Your task to perform on an android device: find photos in the google photos app Image 0: 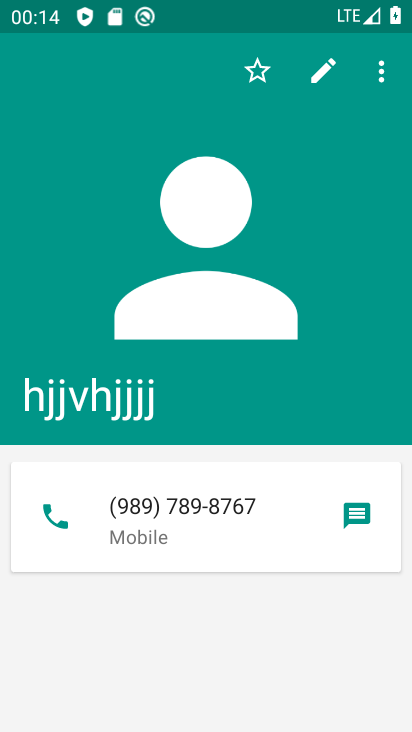
Step 0: press home button
Your task to perform on an android device: find photos in the google photos app Image 1: 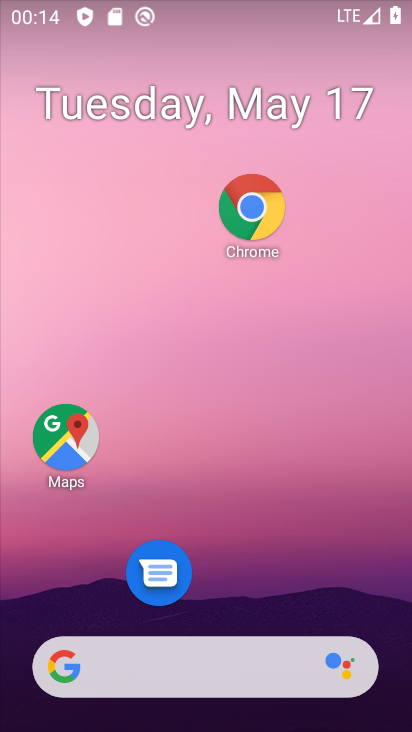
Step 1: drag from (225, 660) to (296, 50)
Your task to perform on an android device: find photos in the google photos app Image 2: 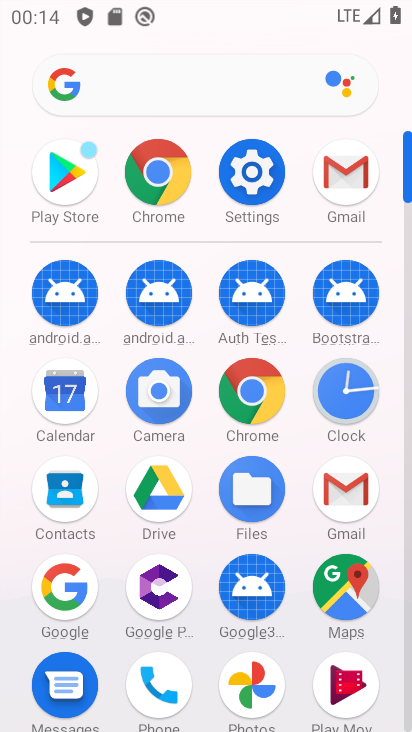
Step 2: click (266, 681)
Your task to perform on an android device: find photos in the google photos app Image 3: 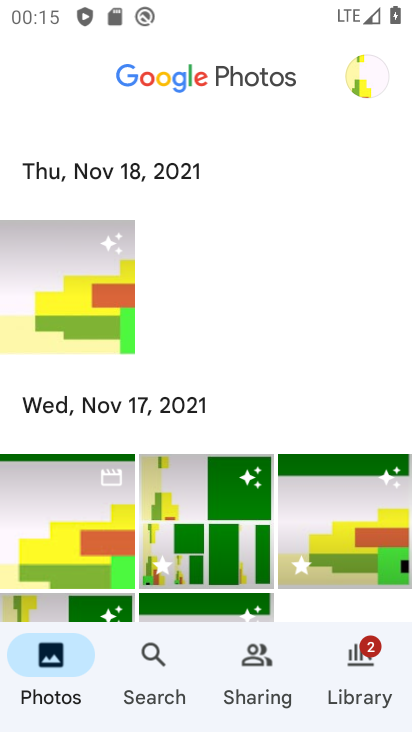
Step 3: task complete